Your task to perform on an android device: Show the shopping cart on ebay.com. Search for "usb-c to usb-a" on ebay.com, select the first entry, add it to the cart, then select checkout. Image 0: 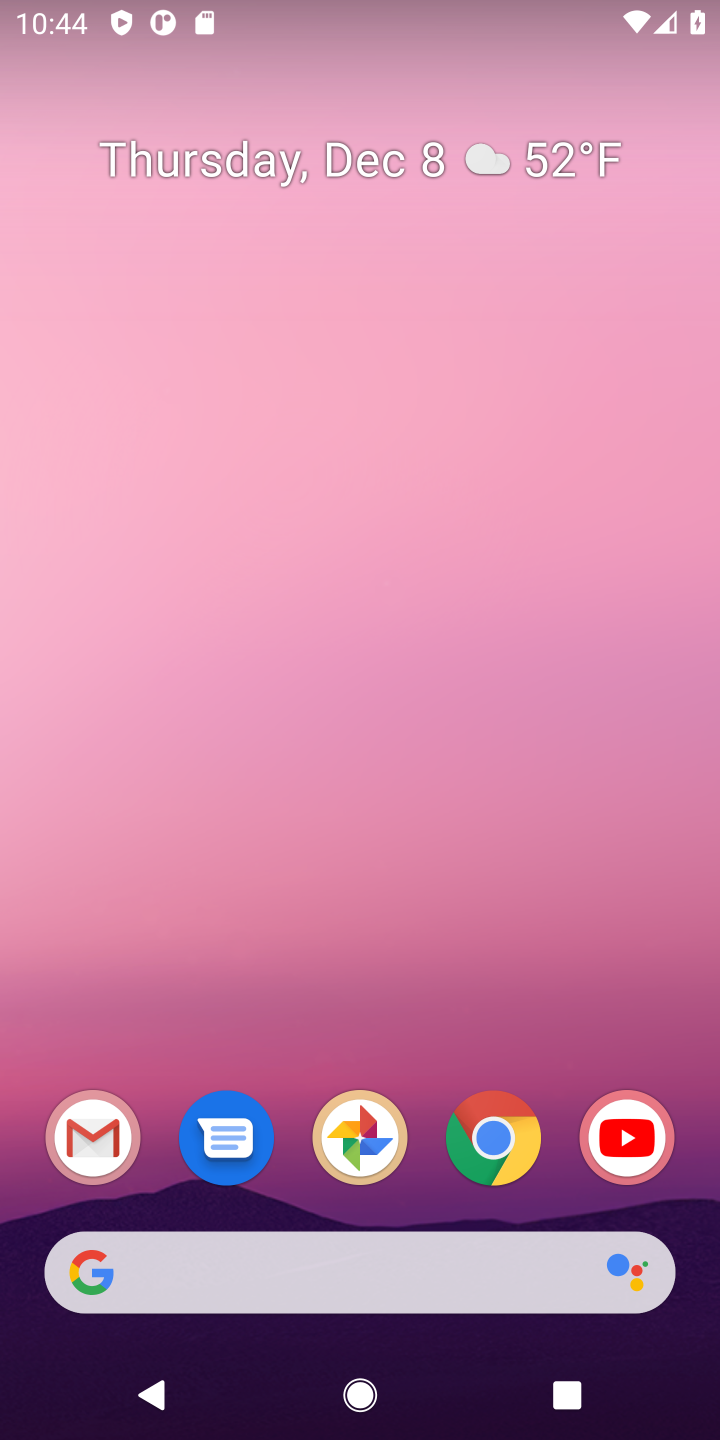
Step 0: click (491, 1154)
Your task to perform on an android device: Show the shopping cart on ebay.com. Search for "usb-c to usb-a" on ebay.com, select the first entry, add it to the cart, then select checkout. Image 1: 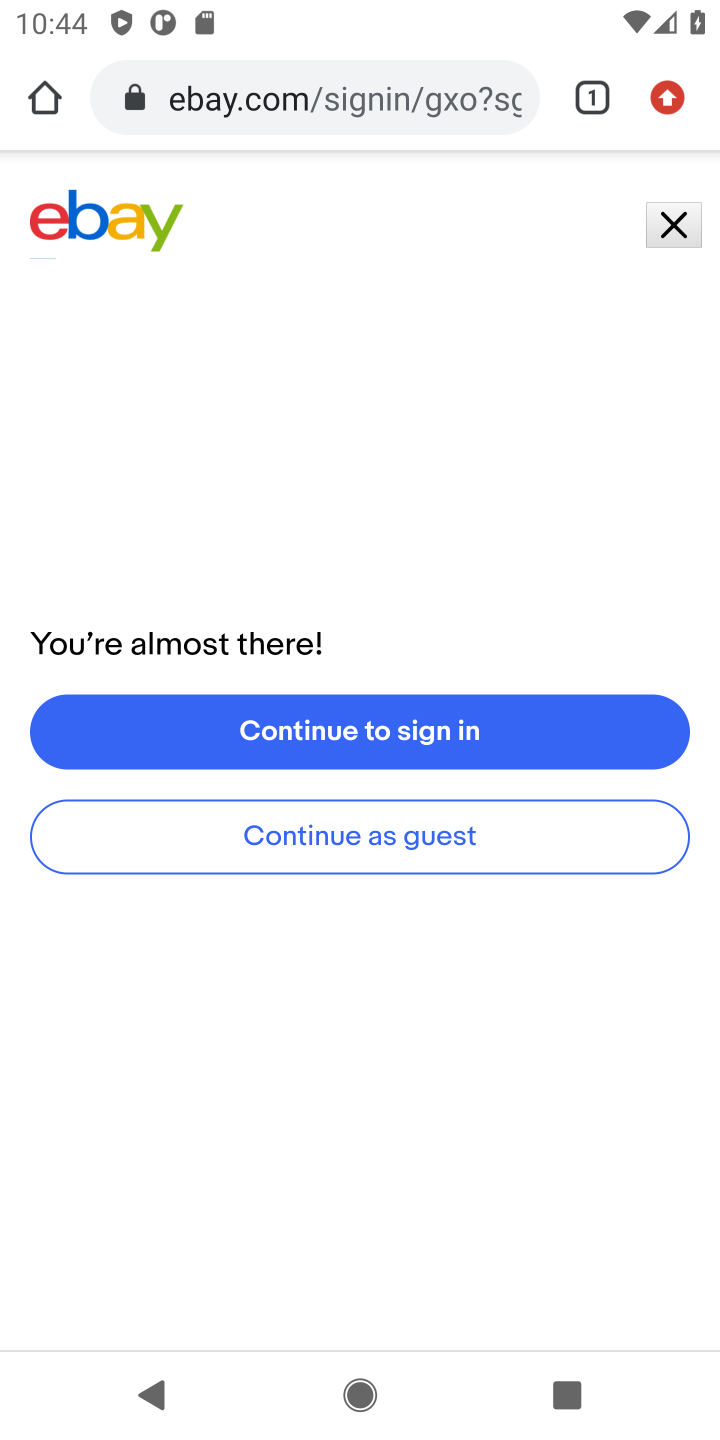
Step 1: click (682, 227)
Your task to perform on an android device: Show the shopping cart on ebay.com. Search for "usb-c to usb-a" on ebay.com, select the first entry, add it to the cart, then select checkout. Image 2: 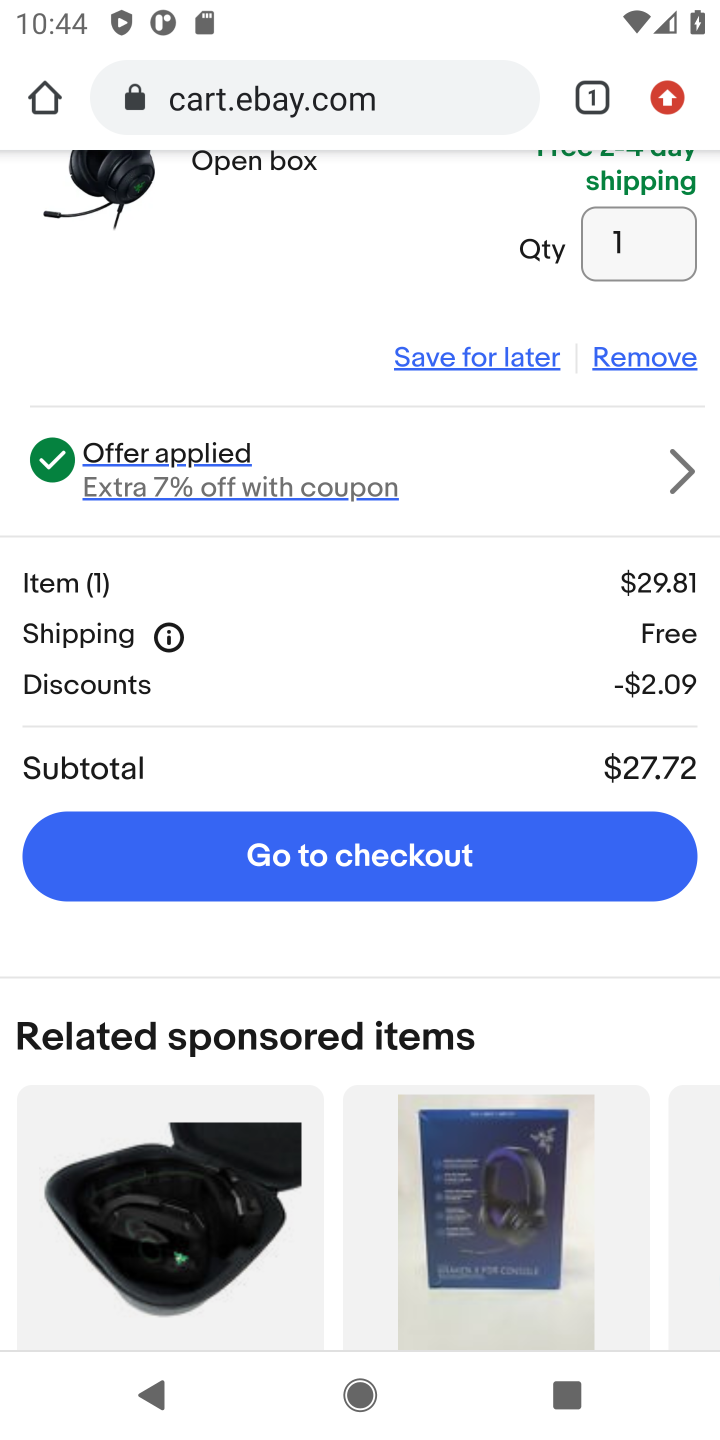
Step 2: drag from (467, 297) to (481, 1248)
Your task to perform on an android device: Show the shopping cart on ebay.com. Search for "usb-c to usb-a" on ebay.com, select the first entry, add it to the cart, then select checkout. Image 3: 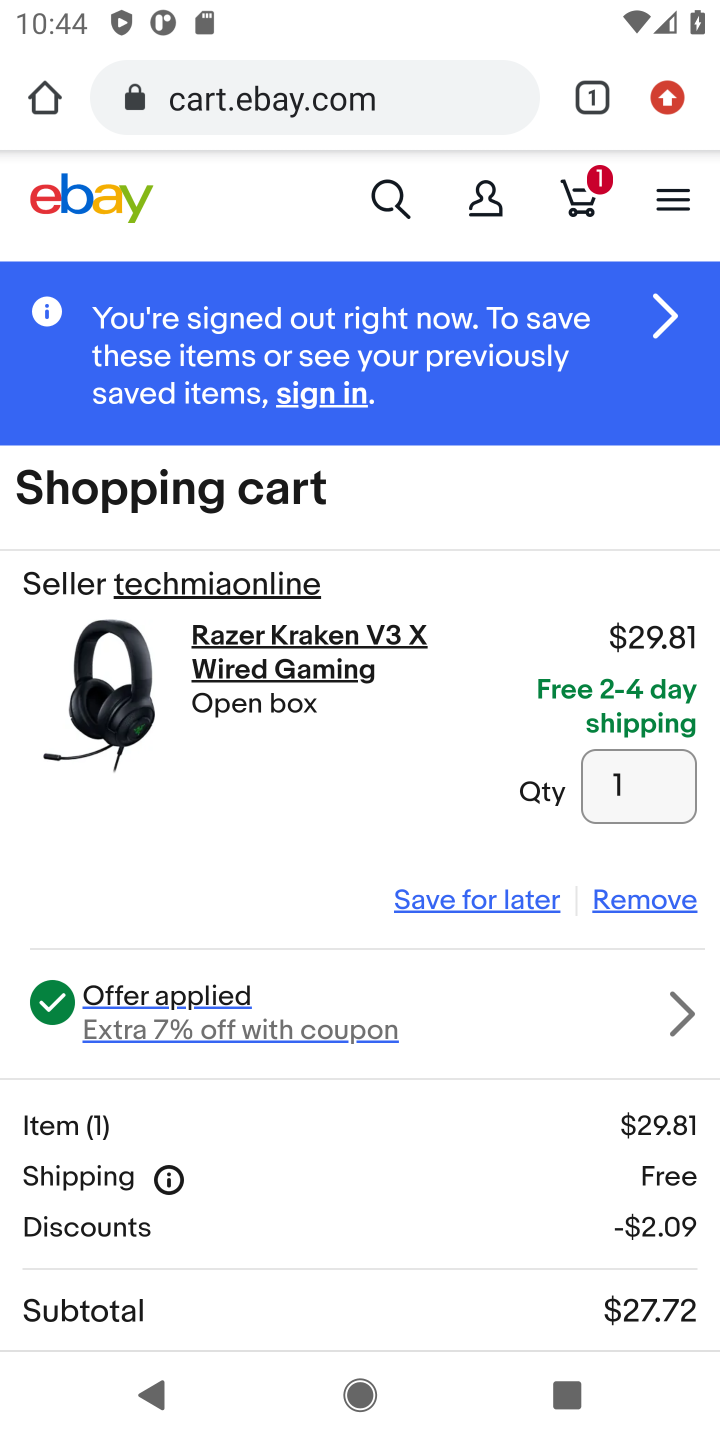
Step 3: click (599, 200)
Your task to perform on an android device: Show the shopping cart on ebay.com. Search for "usb-c to usb-a" on ebay.com, select the first entry, add it to the cart, then select checkout. Image 4: 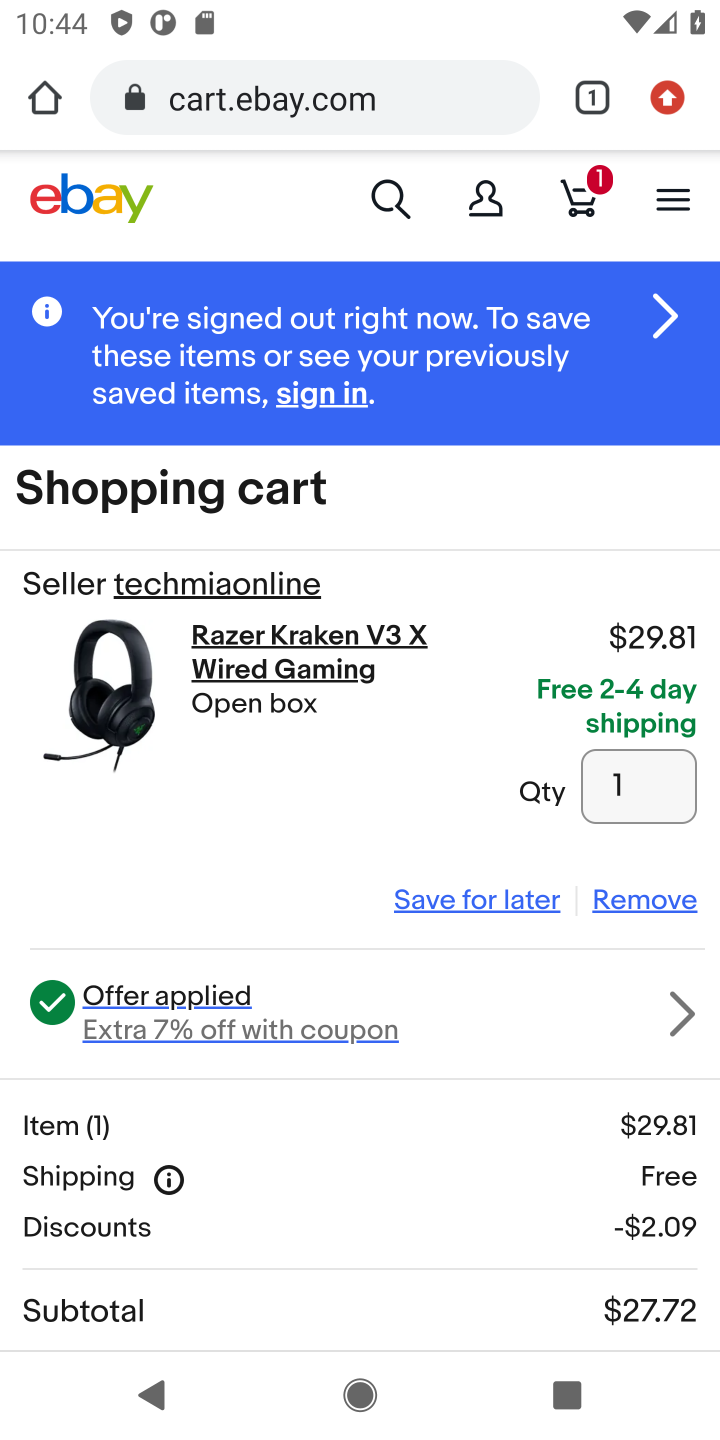
Step 4: click (382, 199)
Your task to perform on an android device: Show the shopping cart on ebay.com. Search for "usb-c to usb-a" on ebay.com, select the first entry, add it to the cart, then select checkout. Image 5: 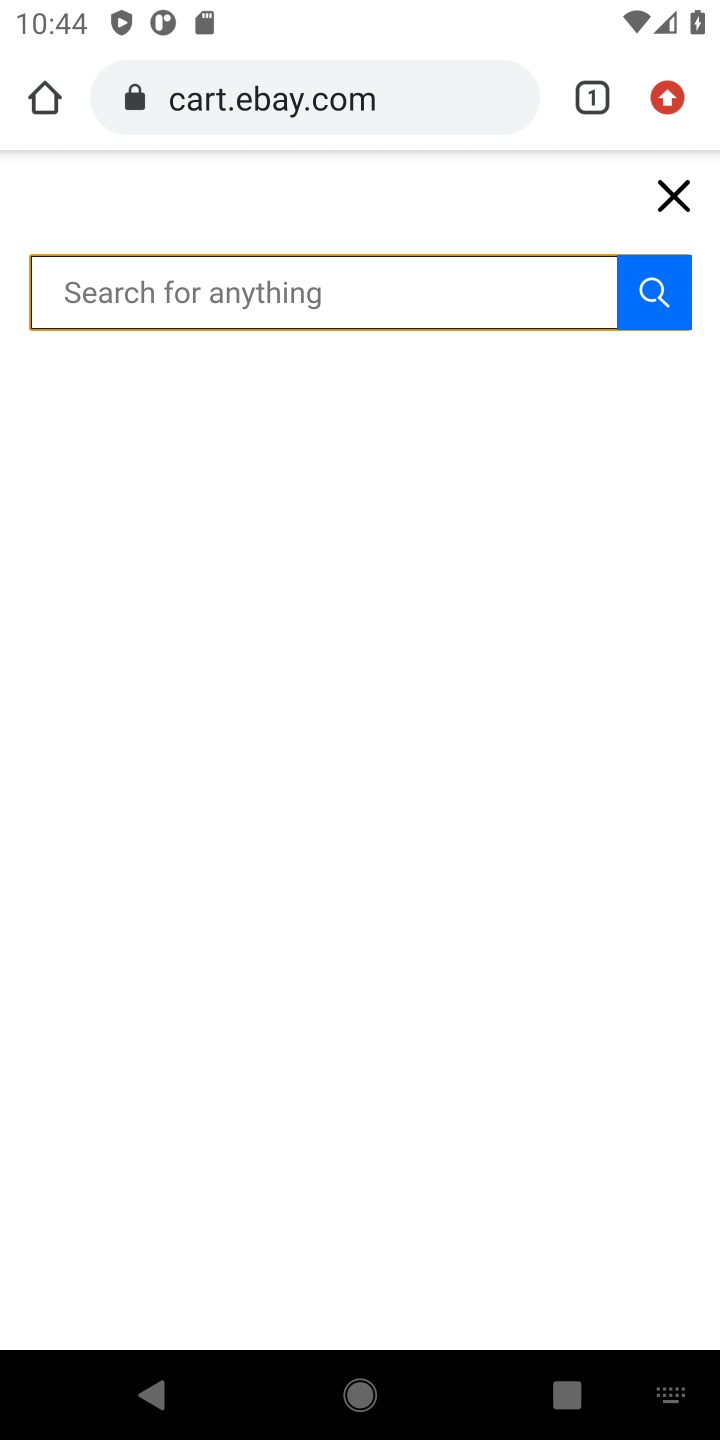
Step 5: type "usb-c to usb-a"
Your task to perform on an android device: Show the shopping cart on ebay.com. Search for "usb-c to usb-a" on ebay.com, select the first entry, add it to the cart, then select checkout. Image 6: 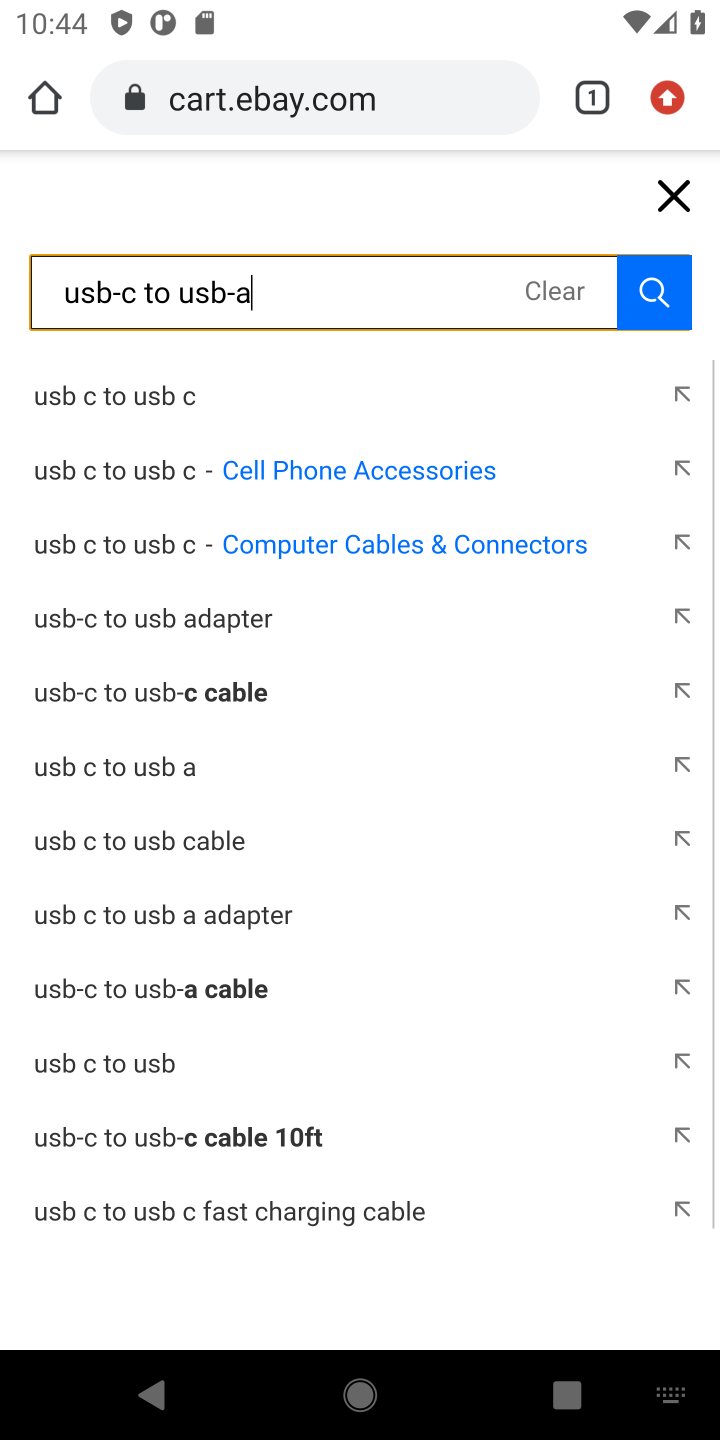
Step 6: press enter
Your task to perform on an android device: Show the shopping cart on ebay.com. Search for "usb-c to usb-a" on ebay.com, select the first entry, add it to the cart, then select checkout. Image 7: 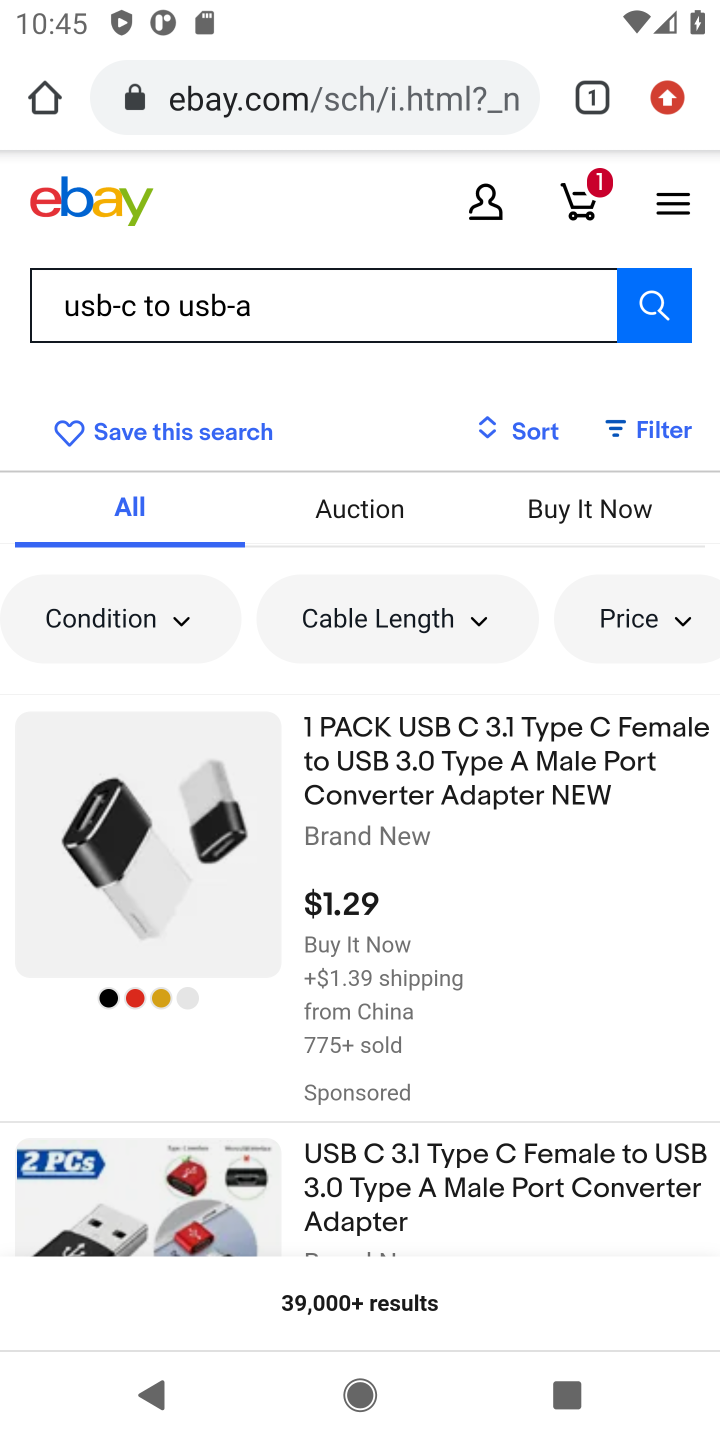
Step 7: drag from (617, 903) to (655, 721)
Your task to perform on an android device: Show the shopping cart on ebay.com. Search for "usb-c to usb-a" on ebay.com, select the first entry, add it to the cart, then select checkout. Image 8: 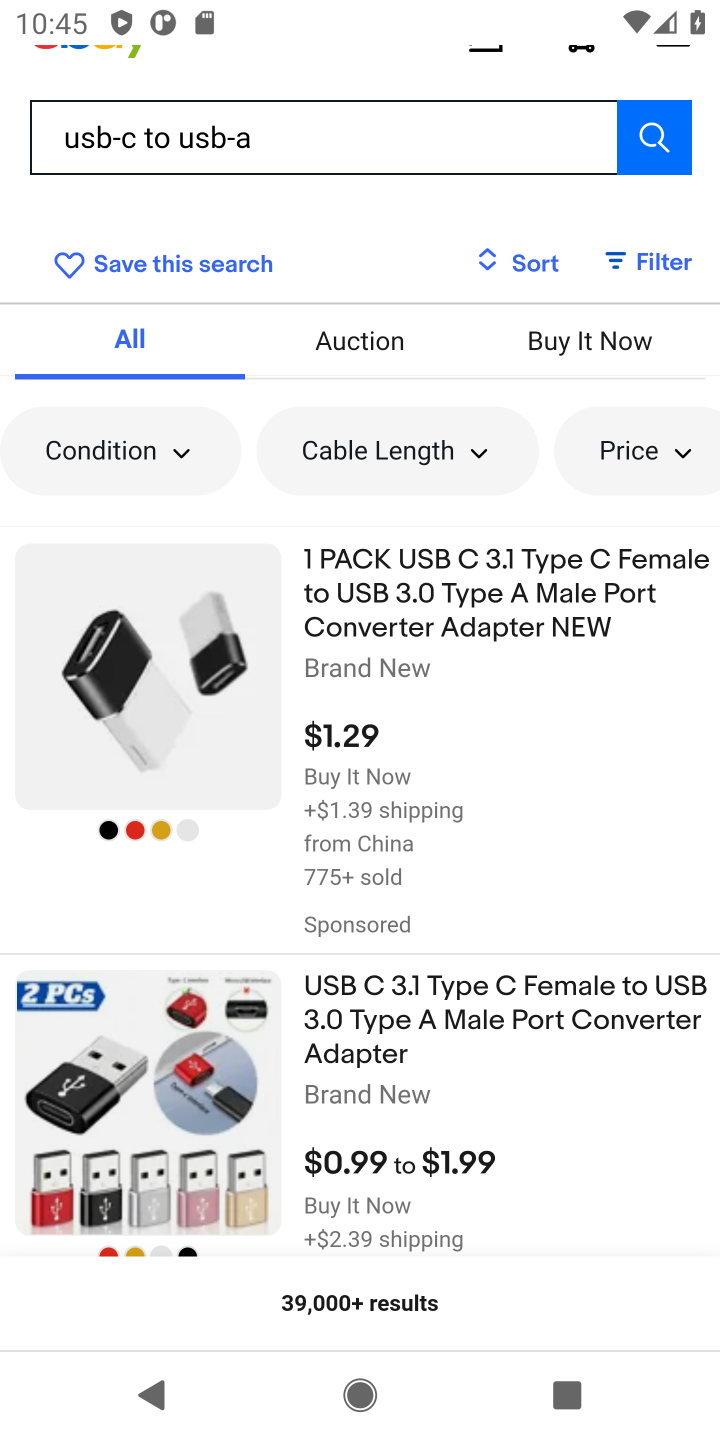
Step 8: click (158, 724)
Your task to perform on an android device: Show the shopping cart on ebay.com. Search for "usb-c to usb-a" on ebay.com, select the first entry, add it to the cart, then select checkout. Image 9: 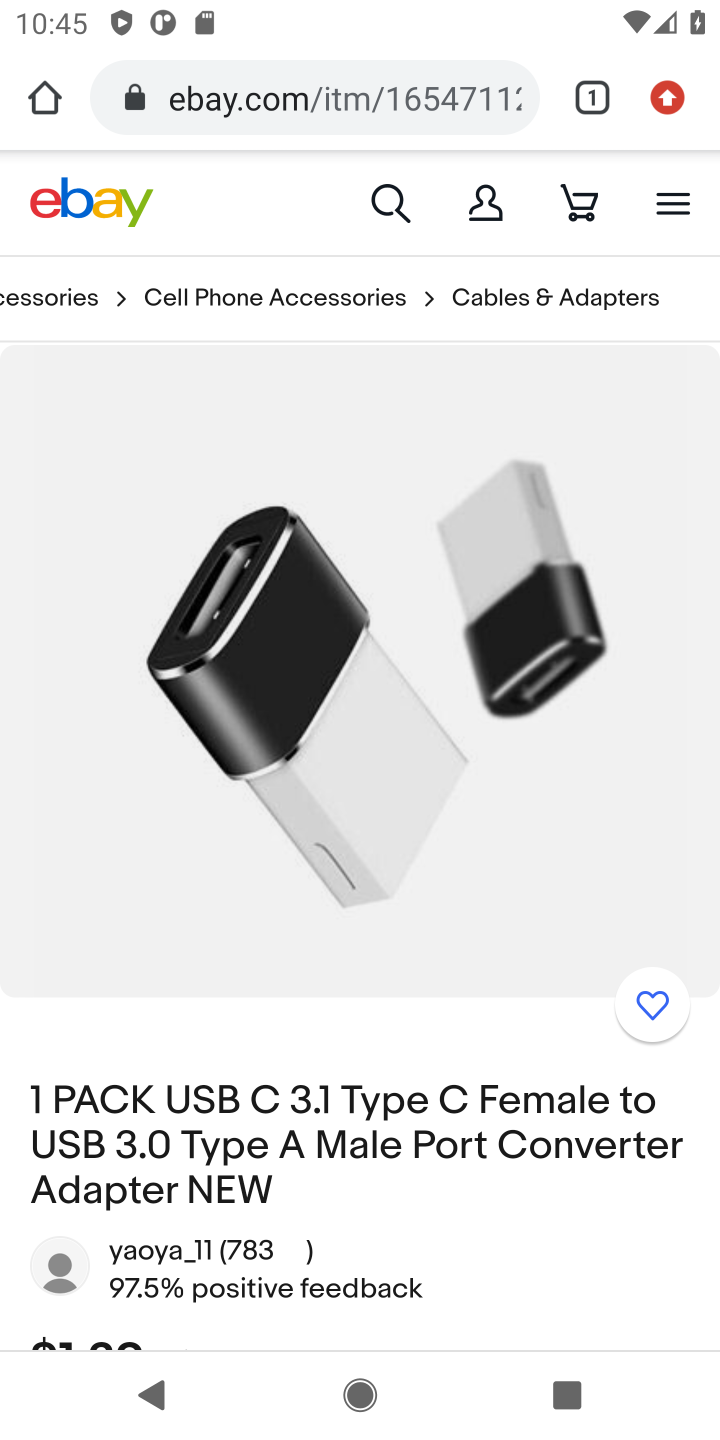
Step 9: drag from (531, 1049) to (536, 314)
Your task to perform on an android device: Show the shopping cart on ebay.com. Search for "usb-c to usb-a" on ebay.com, select the first entry, add it to the cart, then select checkout. Image 10: 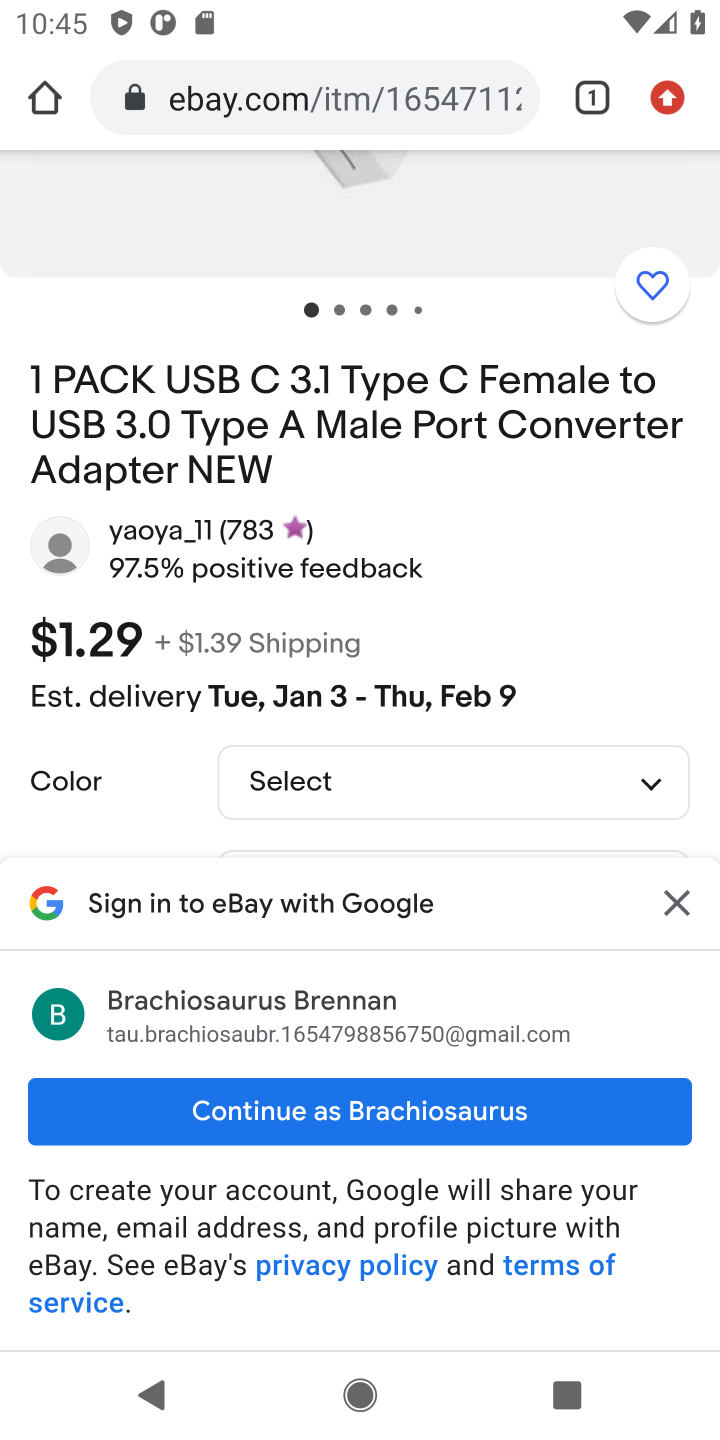
Step 10: click (678, 886)
Your task to perform on an android device: Show the shopping cart on ebay.com. Search for "usb-c to usb-a" on ebay.com, select the first entry, add it to the cart, then select checkout. Image 11: 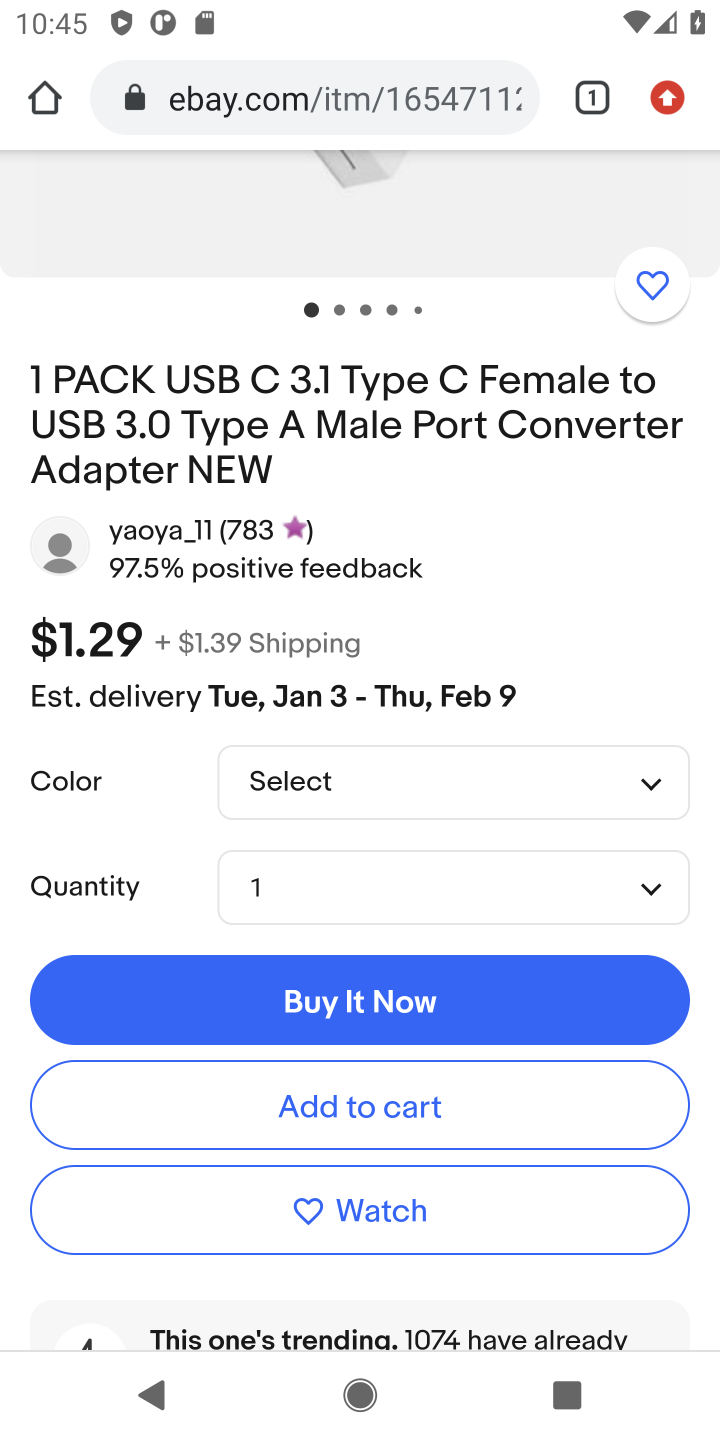
Step 11: click (404, 1094)
Your task to perform on an android device: Show the shopping cart on ebay.com. Search for "usb-c to usb-a" on ebay.com, select the first entry, add it to the cart, then select checkout. Image 12: 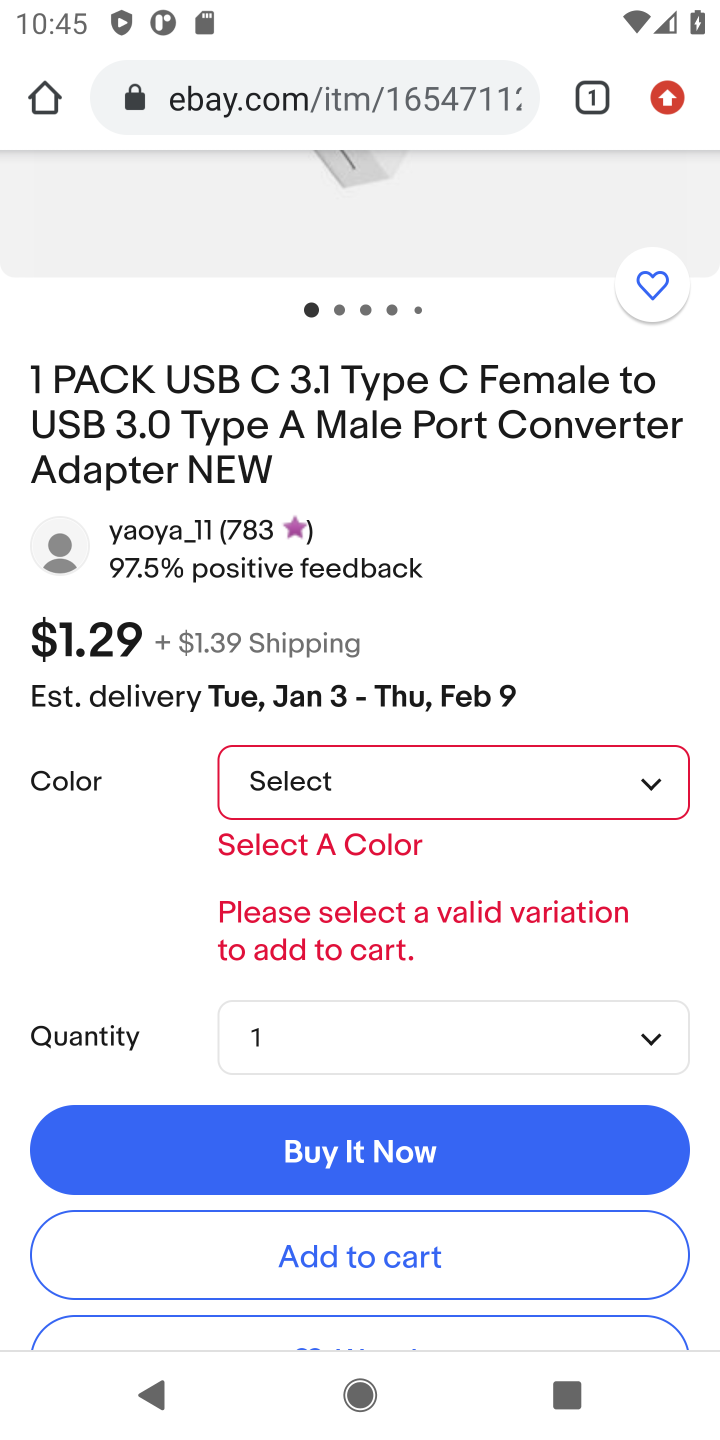
Step 12: click (646, 778)
Your task to perform on an android device: Show the shopping cart on ebay.com. Search for "usb-c to usb-a" on ebay.com, select the first entry, add it to the cart, then select checkout. Image 13: 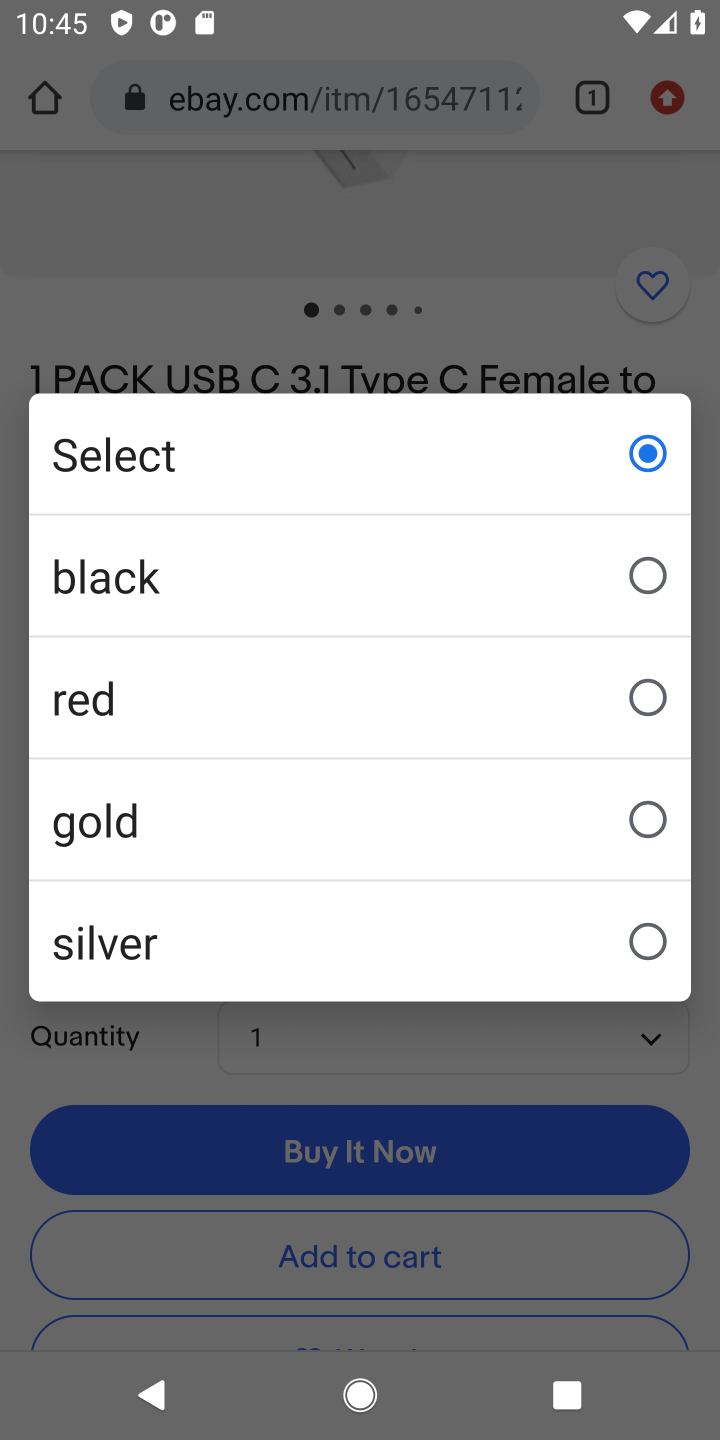
Step 13: click (645, 573)
Your task to perform on an android device: Show the shopping cart on ebay.com. Search for "usb-c to usb-a" on ebay.com, select the first entry, add it to the cart, then select checkout. Image 14: 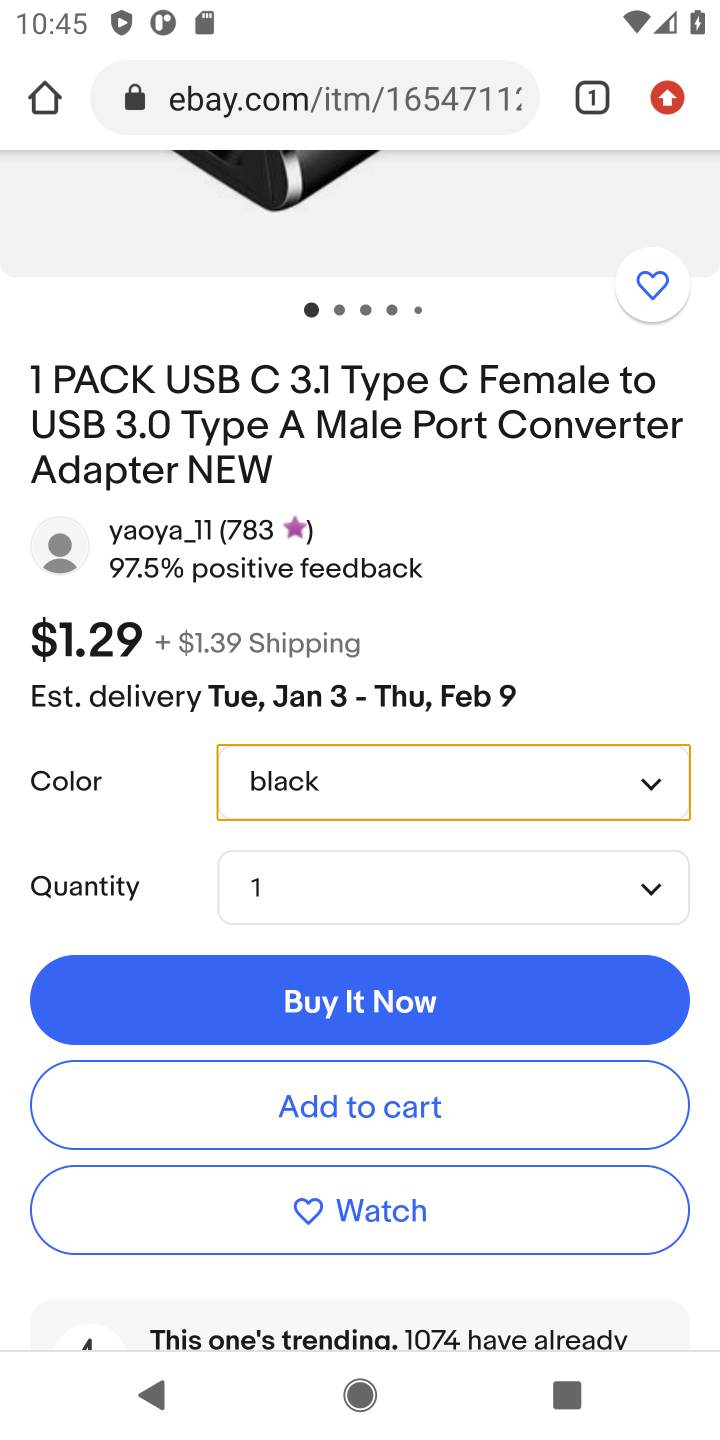
Step 14: click (399, 1101)
Your task to perform on an android device: Show the shopping cart on ebay.com. Search for "usb-c to usb-a" on ebay.com, select the first entry, add it to the cart, then select checkout. Image 15: 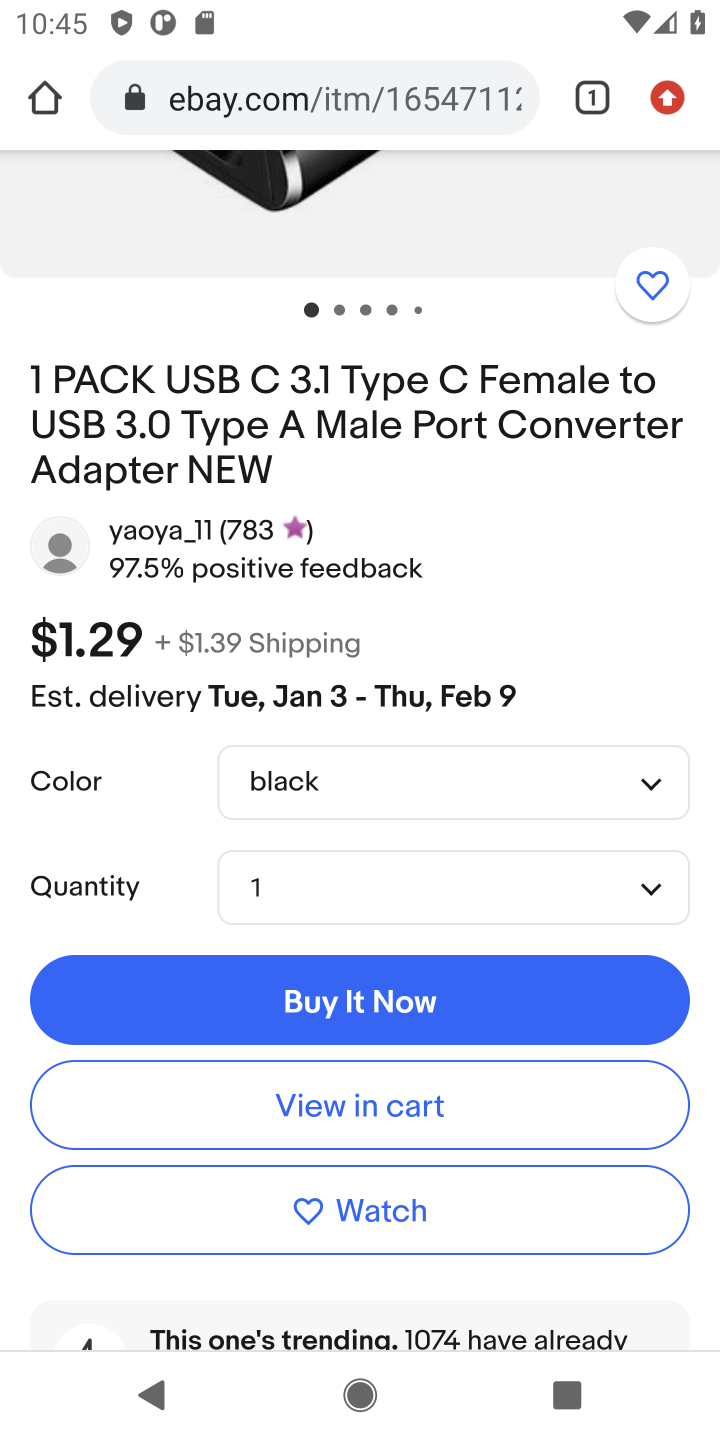
Step 15: click (398, 1100)
Your task to perform on an android device: Show the shopping cart on ebay.com. Search for "usb-c to usb-a" on ebay.com, select the first entry, add it to the cart, then select checkout. Image 16: 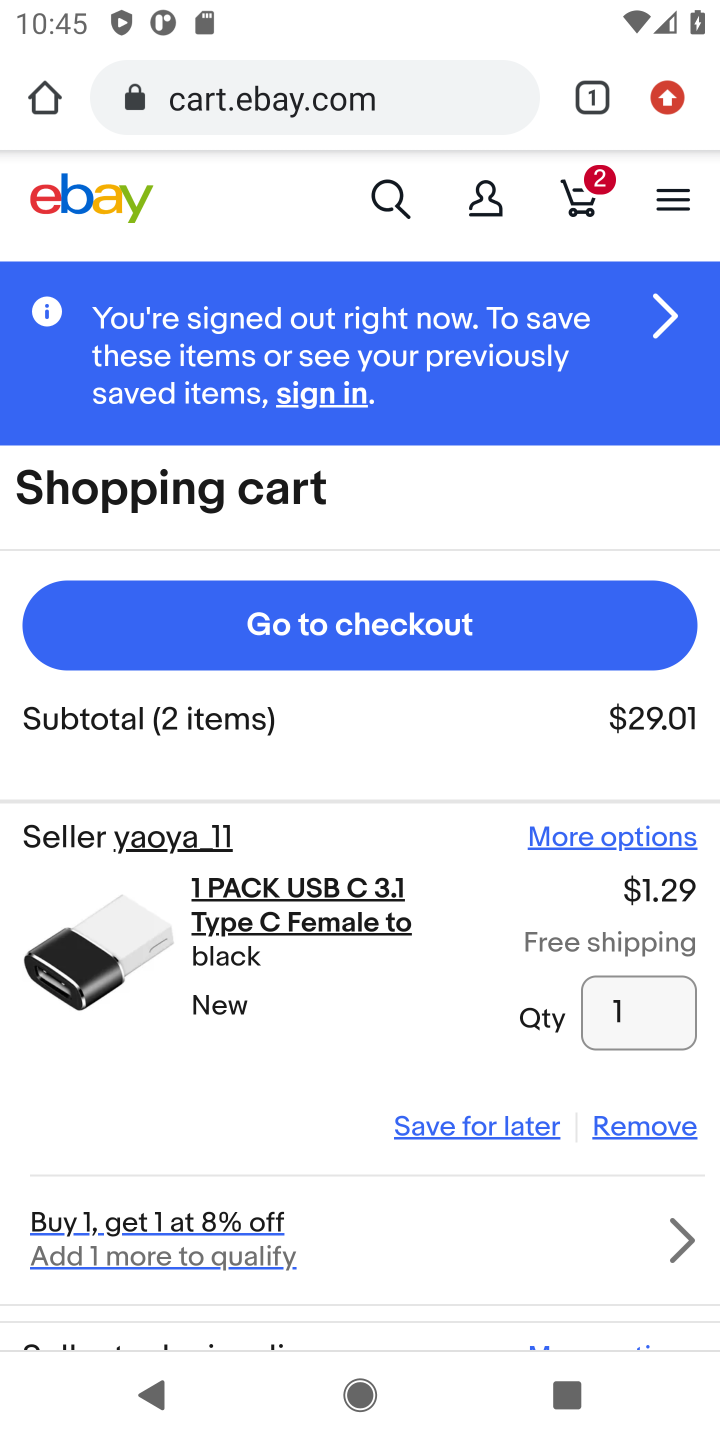
Step 16: click (339, 613)
Your task to perform on an android device: Show the shopping cart on ebay.com. Search for "usb-c to usb-a" on ebay.com, select the first entry, add it to the cart, then select checkout. Image 17: 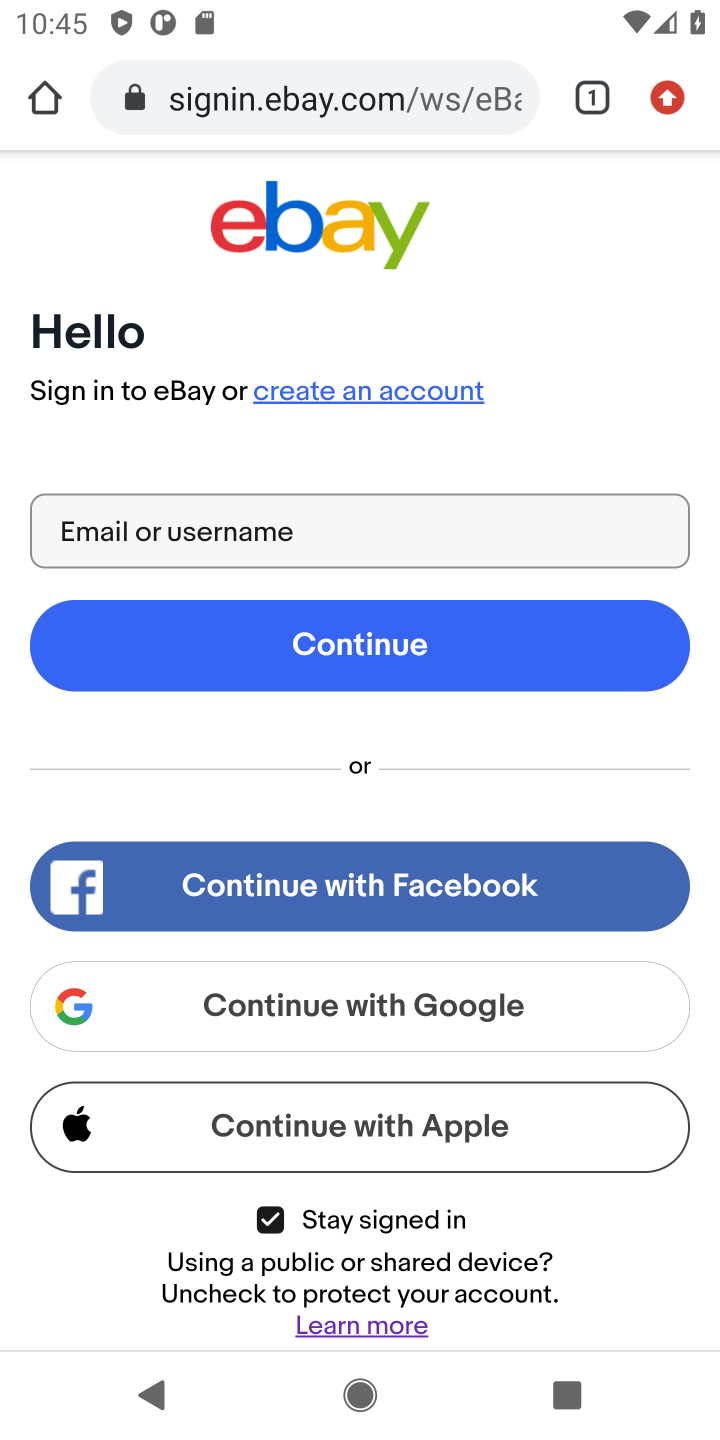
Step 17: task complete